Your task to perform on an android device: Go to accessibility settings Image 0: 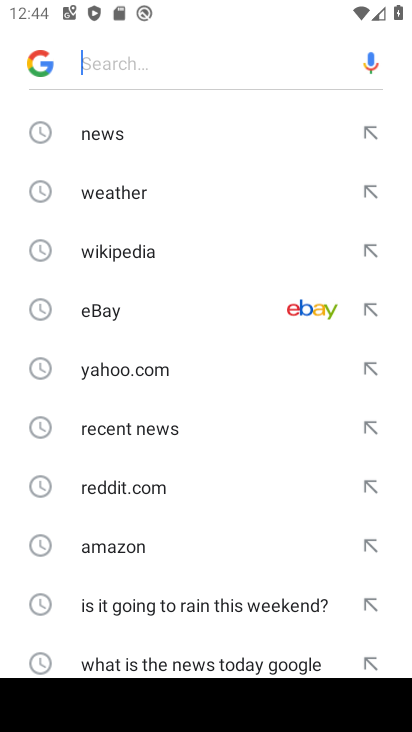
Step 0: press home button
Your task to perform on an android device: Go to accessibility settings Image 1: 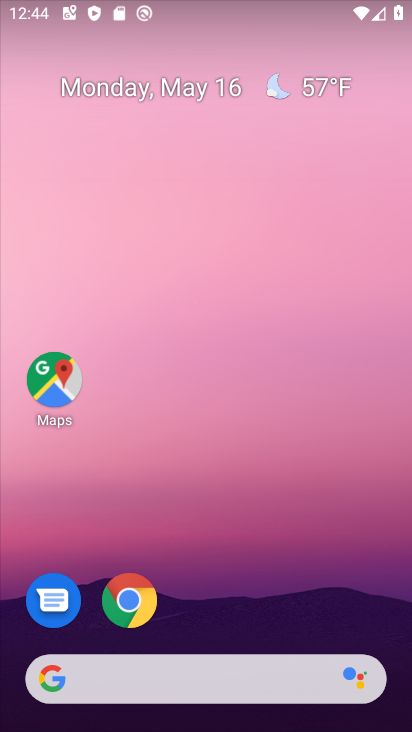
Step 1: drag from (188, 621) to (351, 79)
Your task to perform on an android device: Go to accessibility settings Image 2: 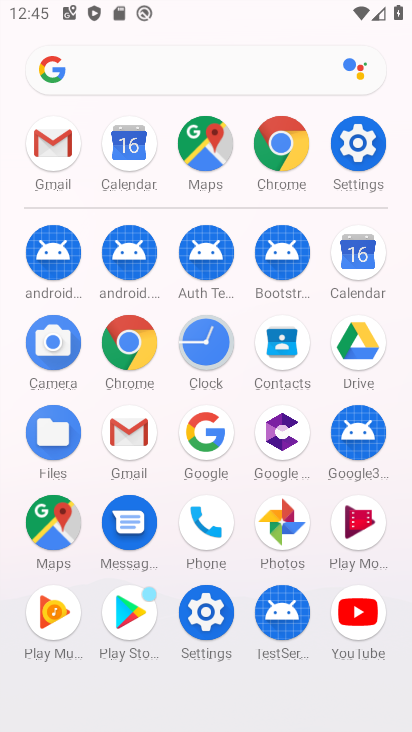
Step 2: click (372, 145)
Your task to perform on an android device: Go to accessibility settings Image 3: 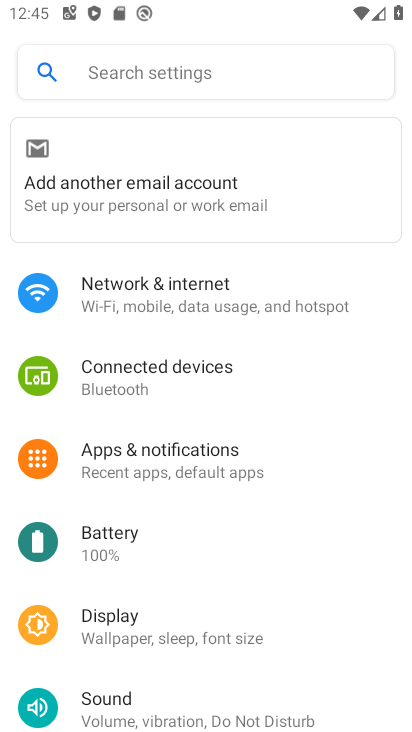
Step 3: drag from (186, 610) to (259, 203)
Your task to perform on an android device: Go to accessibility settings Image 4: 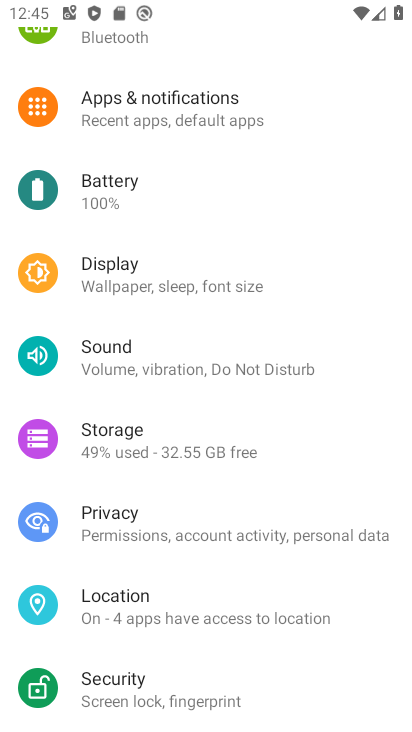
Step 4: drag from (150, 656) to (253, 167)
Your task to perform on an android device: Go to accessibility settings Image 5: 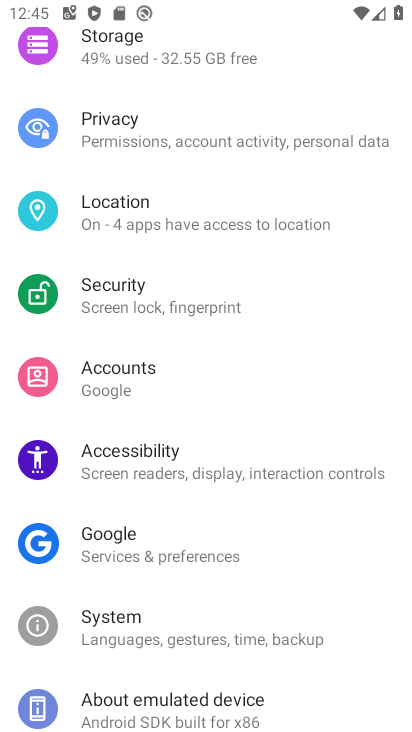
Step 5: click (122, 472)
Your task to perform on an android device: Go to accessibility settings Image 6: 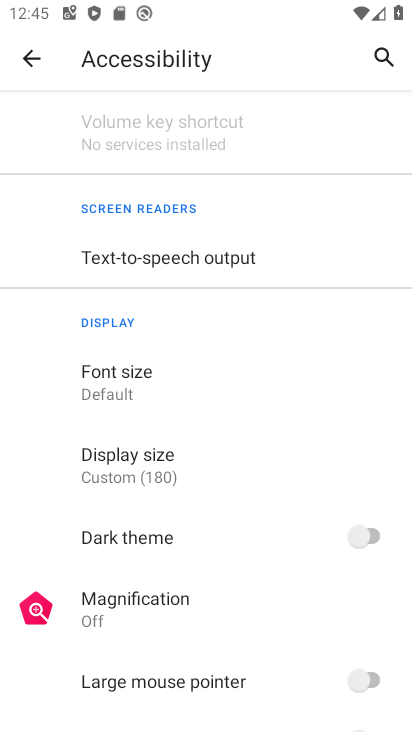
Step 6: task complete